Your task to perform on an android device: toggle location history Image 0: 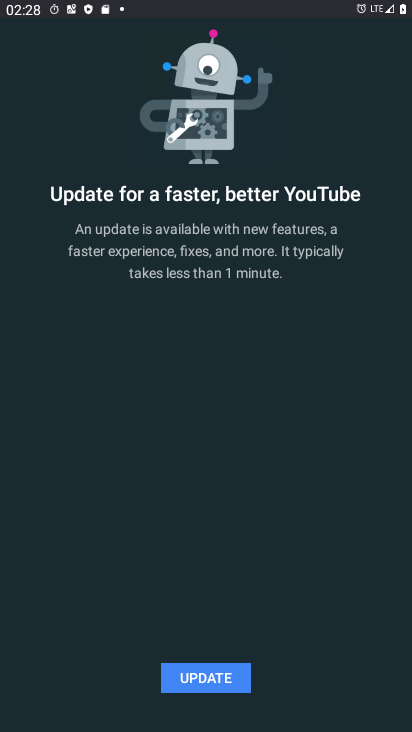
Step 0: press home button
Your task to perform on an android device: toggle location history Image 1: 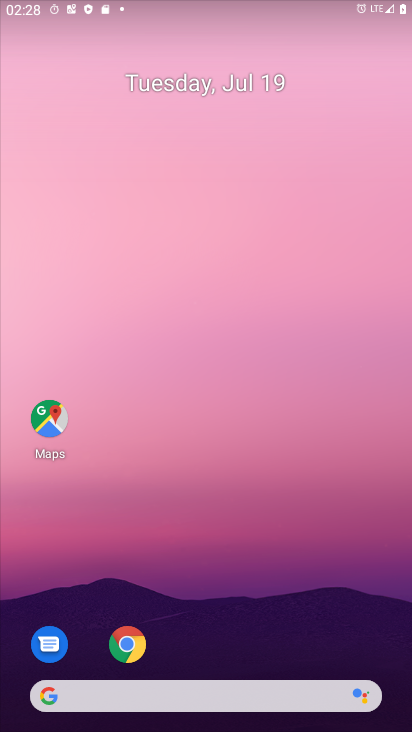
Step 1: drag from (232, 713) to (232, 157)
Your task to perform on an android device: toggle location history Image 2: 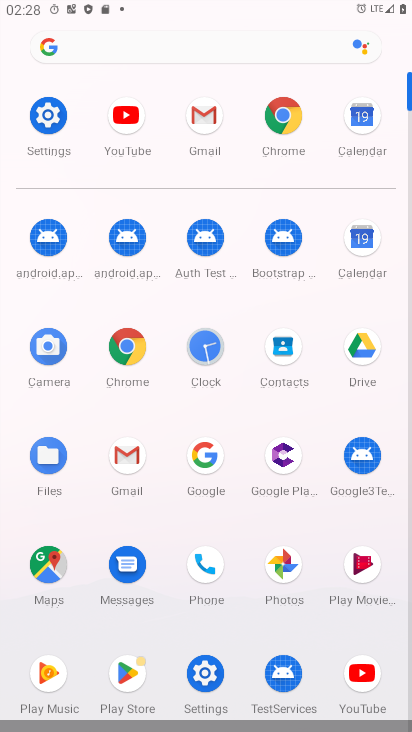
Step 2: click (42, 113)
Your task to perform on an android device: toggle location history Image 3: 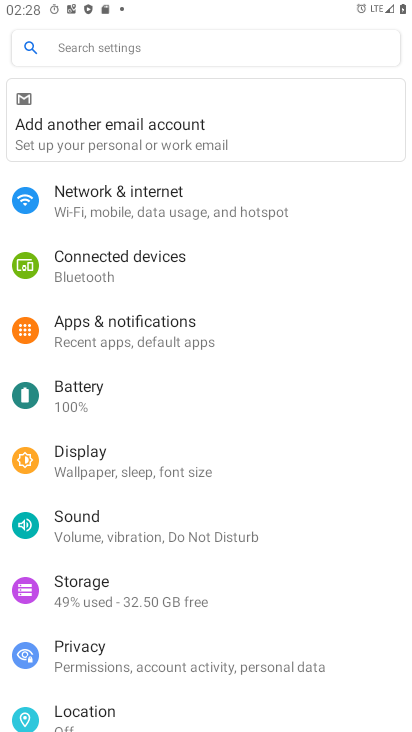
Step 3: click (75, 708)
Your task to perform on an android device: toggle location history Image 4: 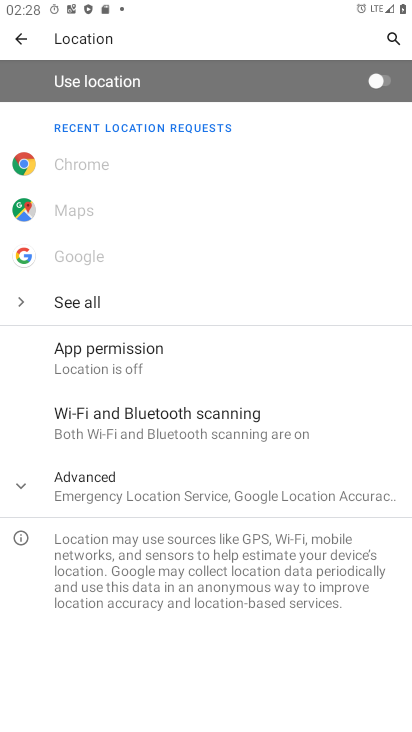
Step 4: click (98, 496)
Your task to perform on an android device: toggle location history Image 5: 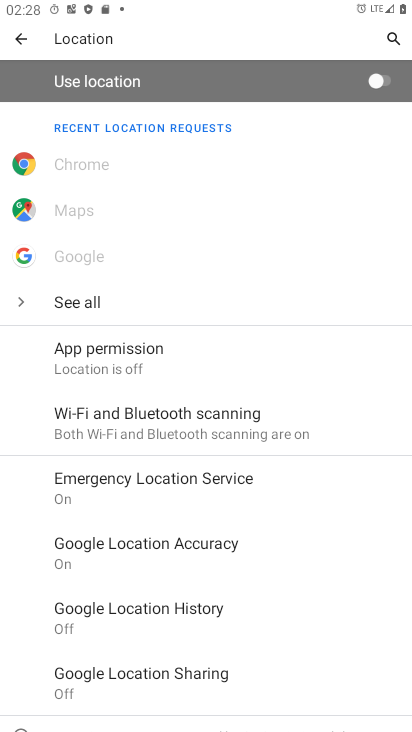
Step 5: click (137, 608)
Your task to perform on an android device: toggle location history Image 6: 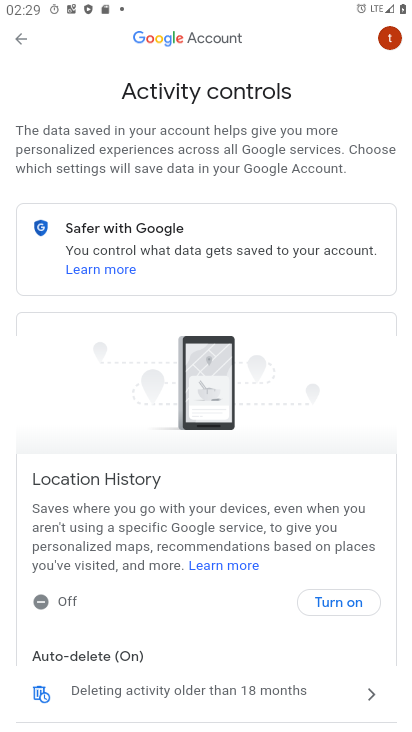
Step 6: click (343, 603)
Your task to perform on an android device: toggle location history Image 7: 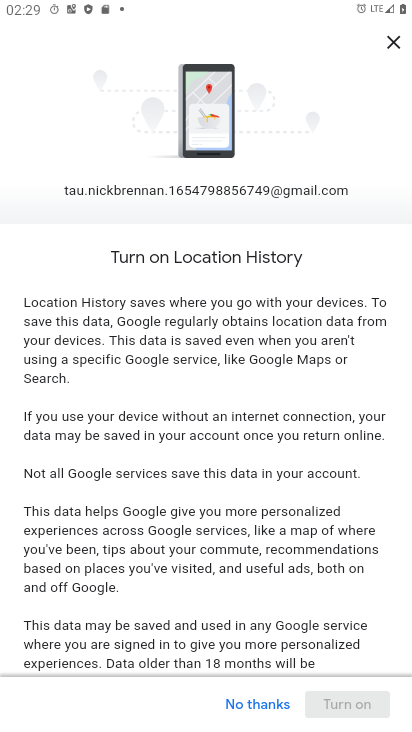
Step 7: click (337, 626)
Your task to perform on an android device: toggle location history Image 8: 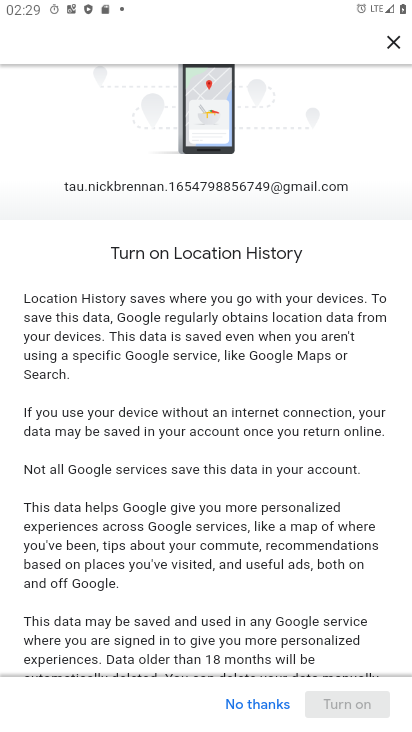
Step 8: drag from (319, 382) to (317, 333)
Your task to perform on an android device: toggle location history Image 9: 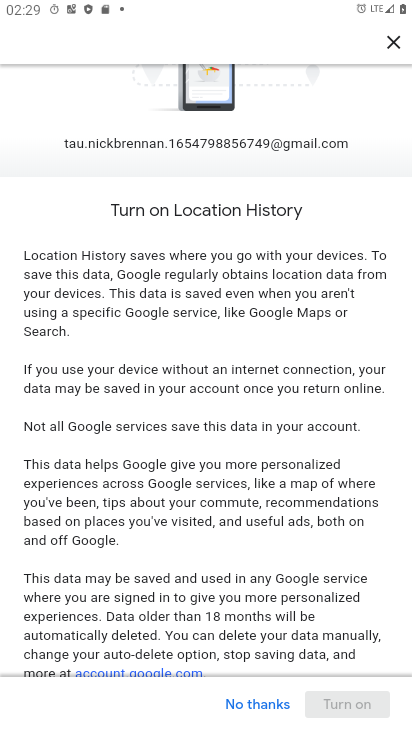
Step 9: drag from (334, 646) to (311, 334)
Your task to perform on an android device: toggle location history Image 10: 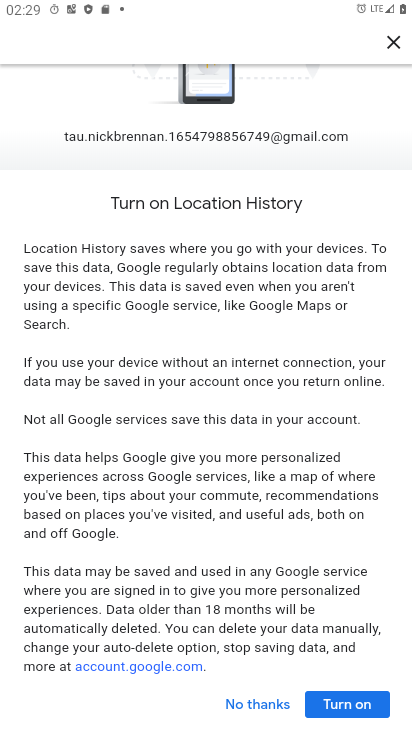
Step 10: click (355, 709)
Your task to perform on an android device: toggle location history Image 11: 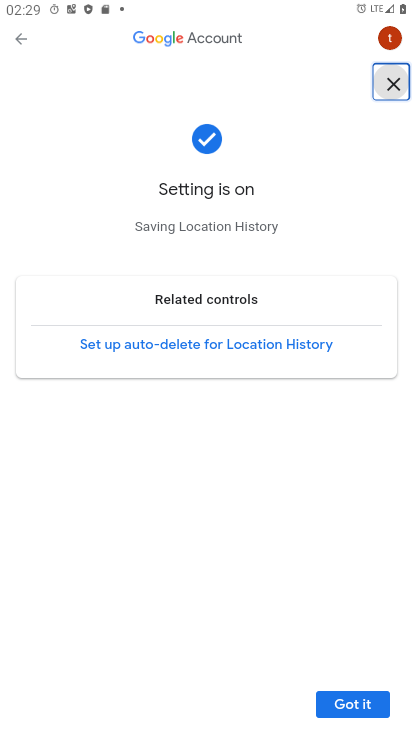
Step 11: click (349, 709)
Your task to perform on an android device: toggle location history Image 12: 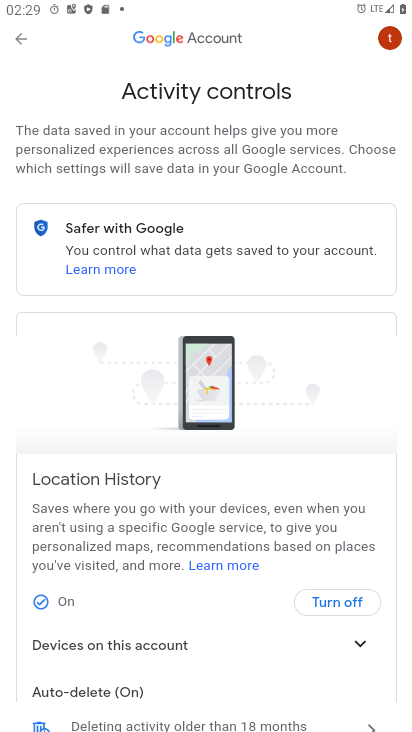
Step 12: task complete